Your task to perform on an android device: Search for sushi restaurants on Maps Image 0: 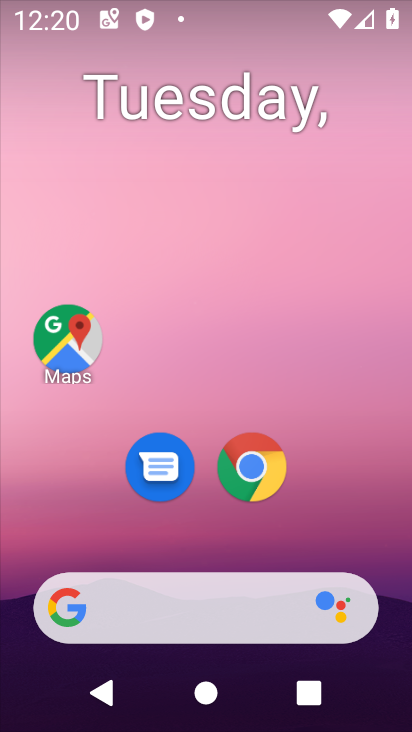
Step 0: drag from (360, 505) to (287, 4)
Your task to perform on an android device: Search for sushi restaurants on Maps Image 1: 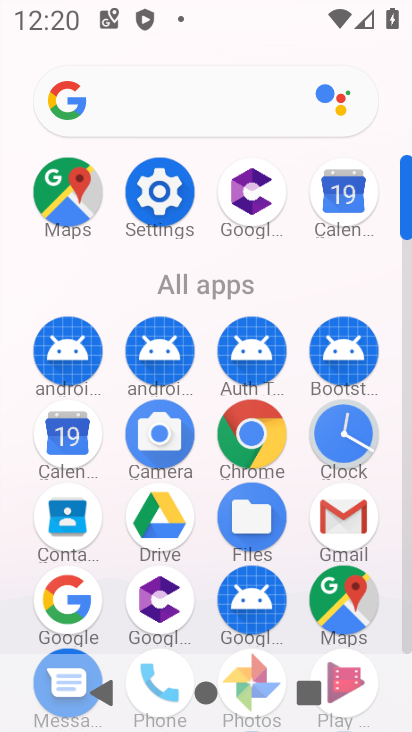
Step 1: click (65, 190)
Your task to perform on an android device: Search for sushi restaurants on Maps Image 2: 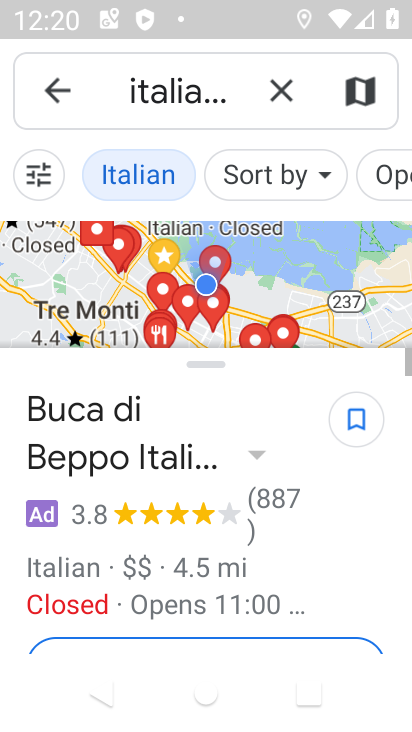
Step 2: click (281, 85)
Your task to perform on an android device: Search for sushi restaurants on Maps Image 3: 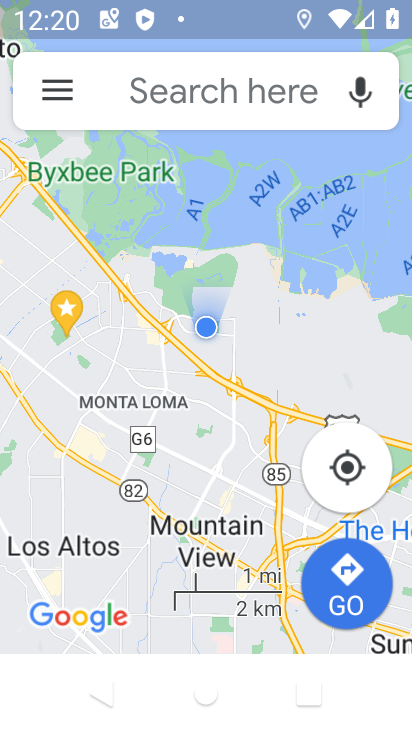
Step 3: click (203, 83)
Your task to perform on an android device: Search for sushi restaurants on Maps Image 4: 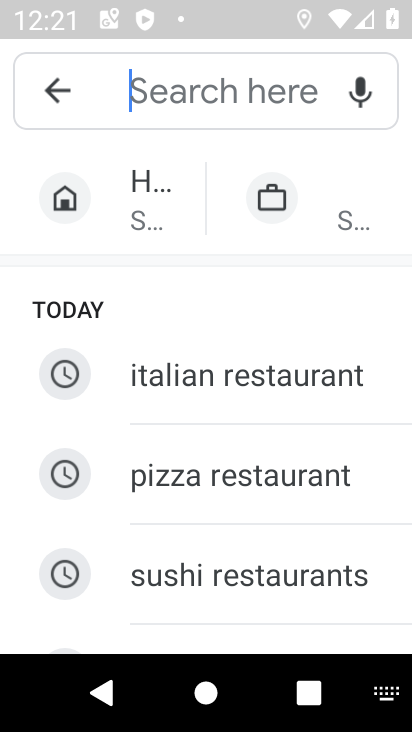
Step 4: click (187, 583)
Your task to perform on an android device: Search for sushi restaurants on Maps Image 5: 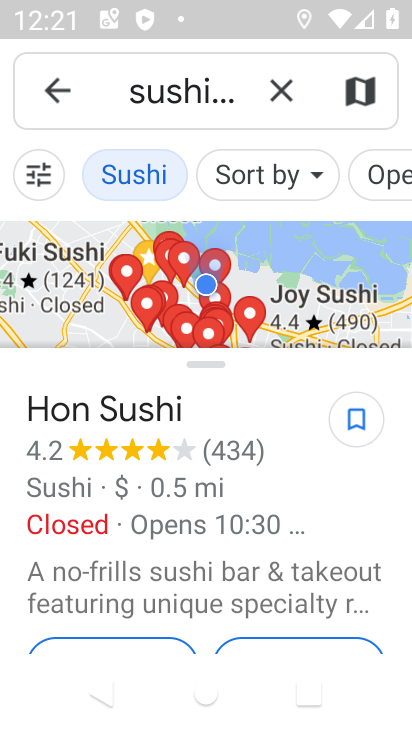
Step 5: task complete